Your task to perform on an android device: toggle notification dots Image 0: 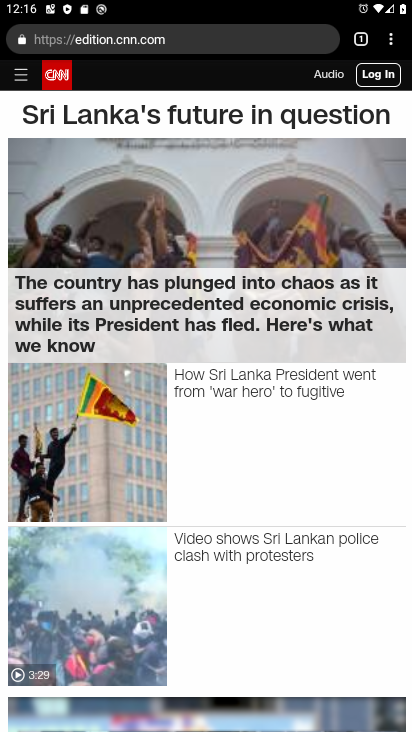
Step 0: press home button
Your task to perform on an android device: toggle notification dots Image 1: 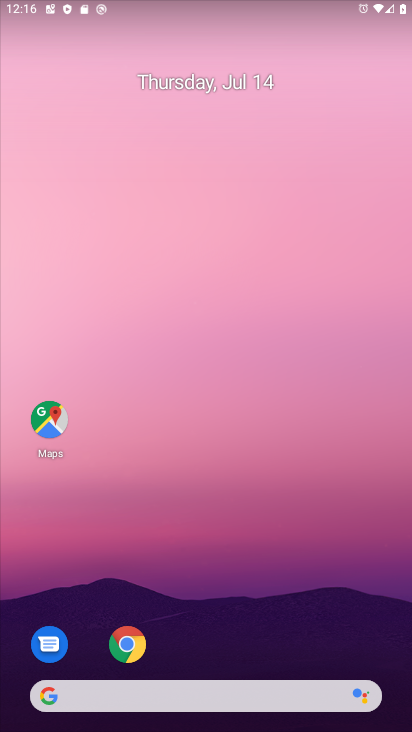
Step 1: drag from (236, 649) to (116, 214)
Your task to perform on an android device: toggle notification dots Image 2: 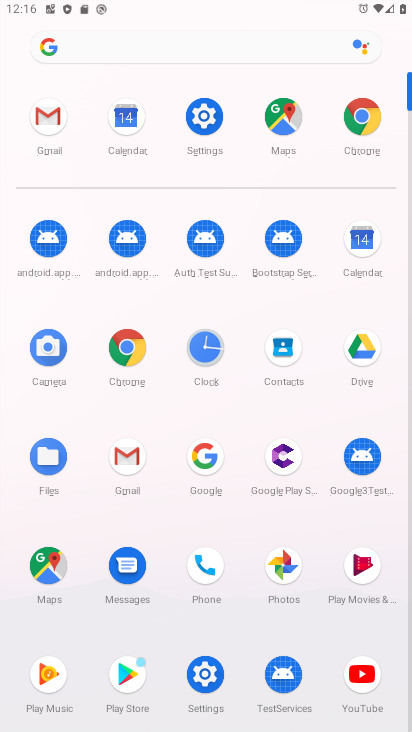
Step 2: click (203, 120)
Your task to perform on an android device: toggle notification dots Image 3: 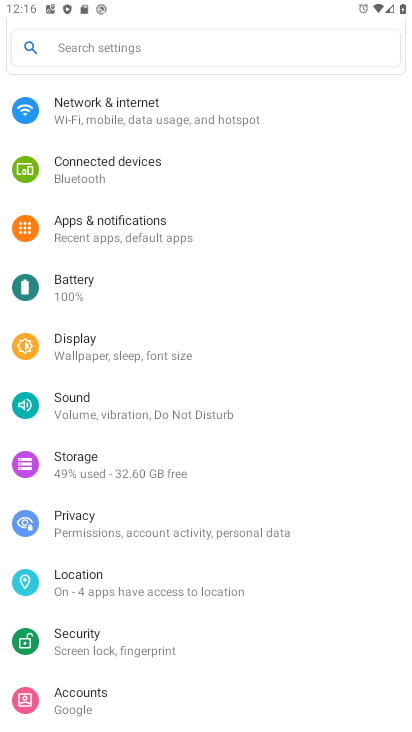
Step 3: click (84, 214)
Your task to perform on an android device: toggle notification dots Image 4: 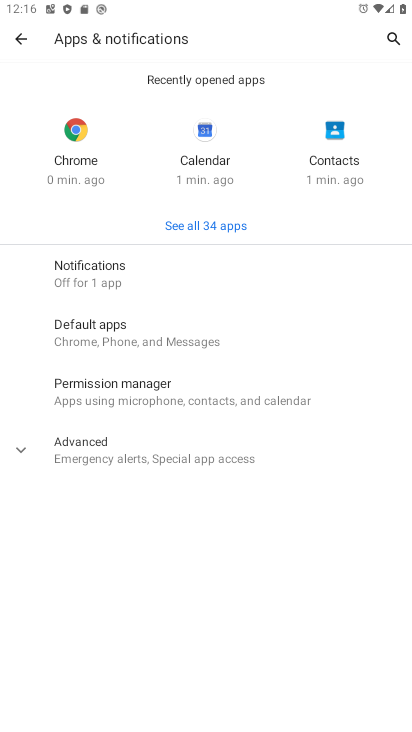
Step 4: click (65, 445)
Your task to perform on an android device: toggle notification dots Image 5: 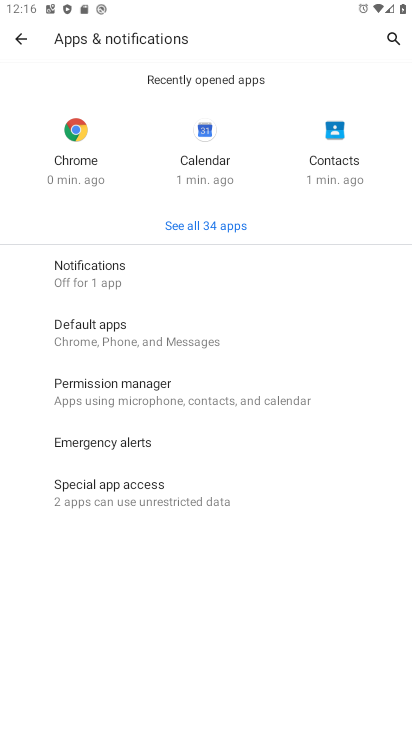
Step 5: click (77, 291)
Your task to perform on an android device: toggle notification dots Image 6: 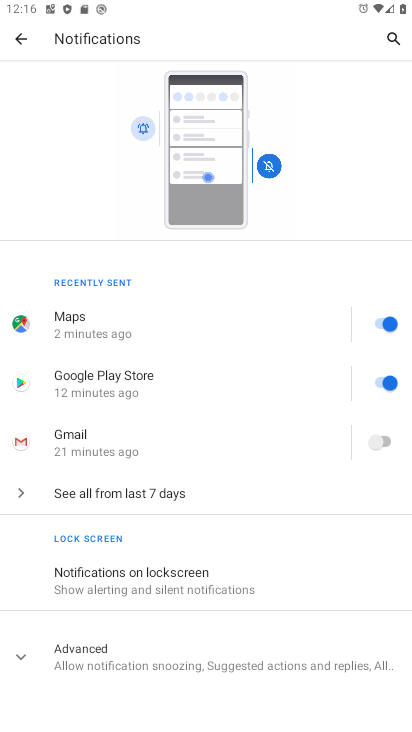
Step 6: click (155, 646)
Your task to perform on an android device: toggle notification dots Image 7: 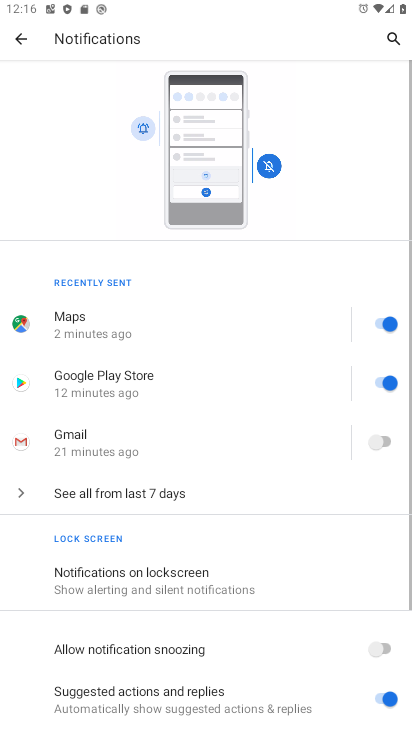
Step 7: drag from (155, 646) to (70, 275)
Your task to perform on an android device: toggle notification dots Image 8: 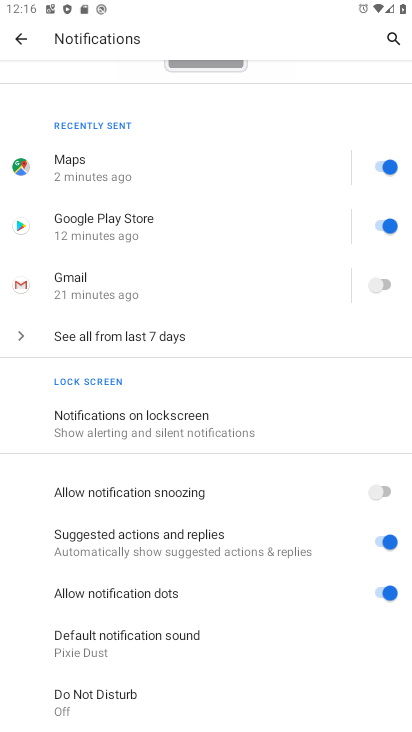
Step 8: click (385, 597)
Your task to perform on an android device: toggle notification dots Image 9: 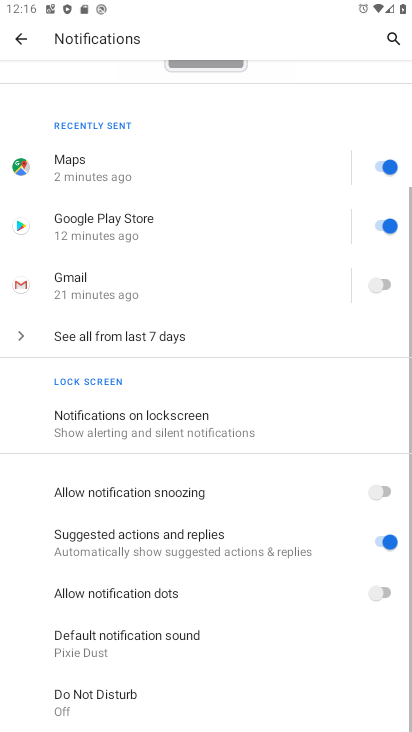
Step 9: task complete